Your task to perform on an android device: Is it going to rain this weekend? Image 0: 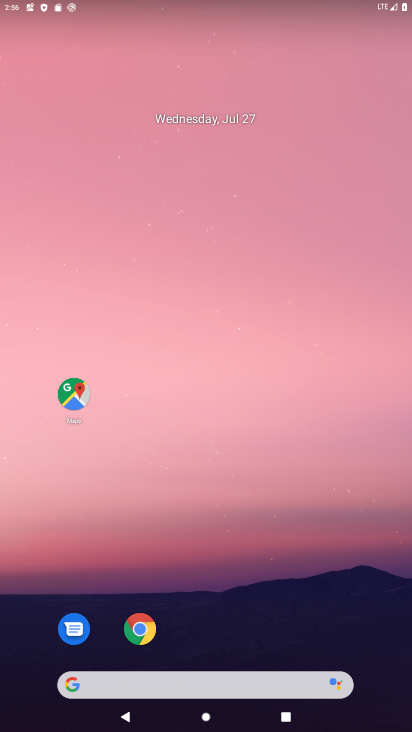
Step 0: click (138, 679)
Your task to perform on an android device: Is it going to rain this weekend? Image 1: 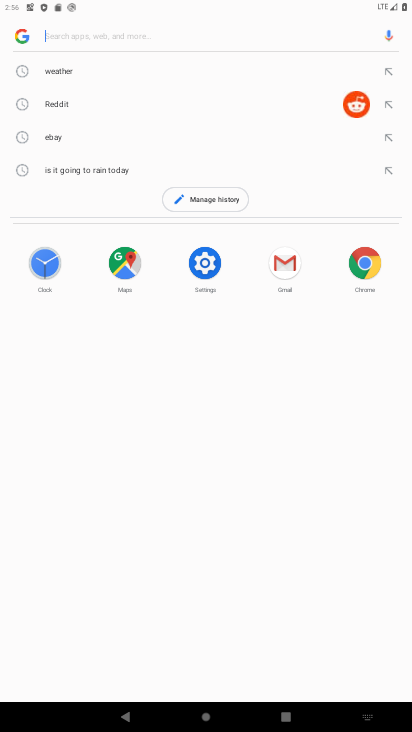
Step 1: click (88, 63)
Your task to perform on an android device: Is it going to rain this weekend? Image 2: 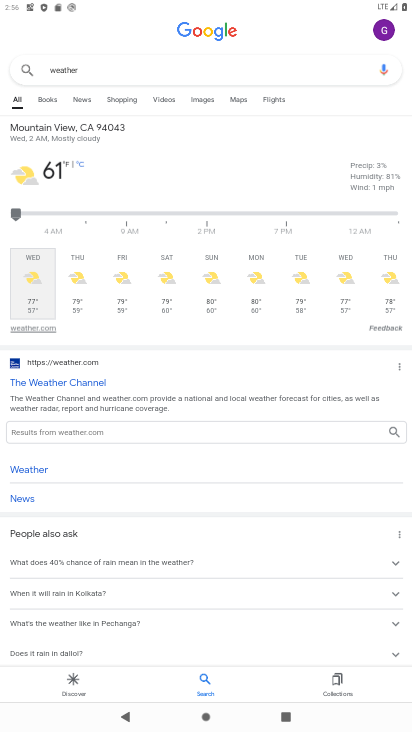
Step 2: click (212, 288)
Your task to perform on an android device: Is it going to rain this weekend? Image 3: 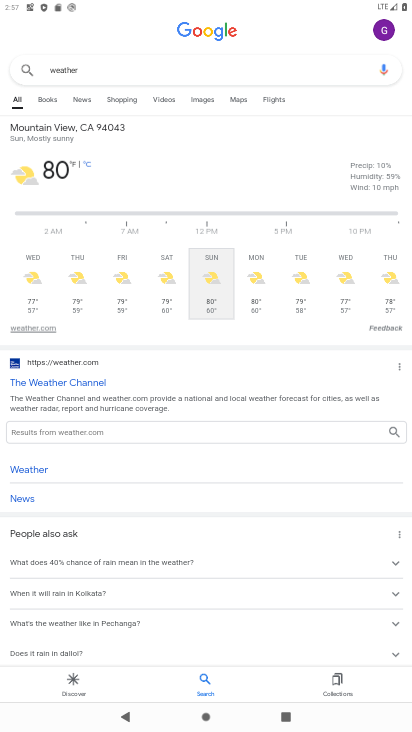
Step 3: task complete